Your task to perform on an android device: open sync settings in chrome Image 0: 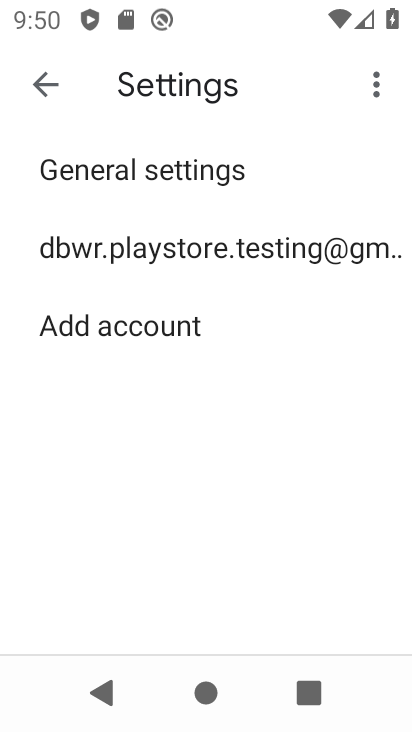
Step 0: press home button
Your task to perform on an android device: open sync settings in chrome Image 1: 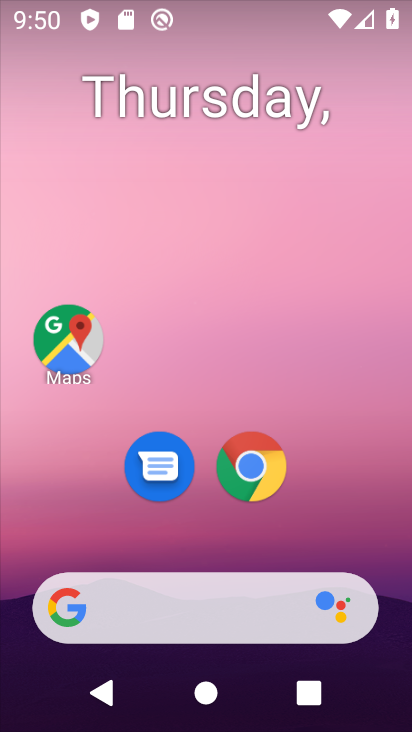
Step 1: click (258, 475)
Your task to perform on an android device: open sync settings in chrome Image 2: 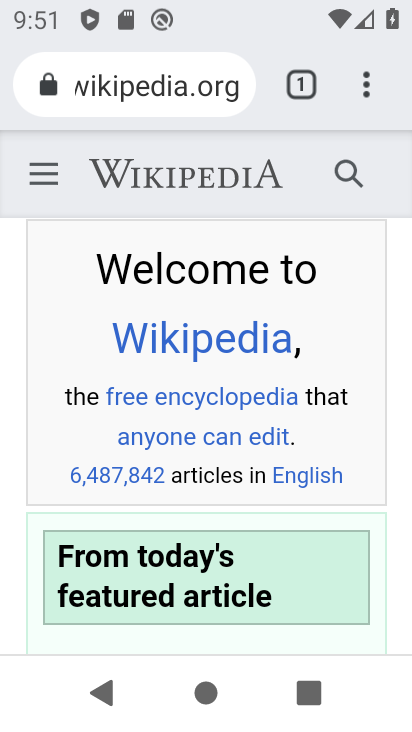
Step 2: click (364, 75)
Your task to perform on an android device: open sync settings in chrome Image 3: 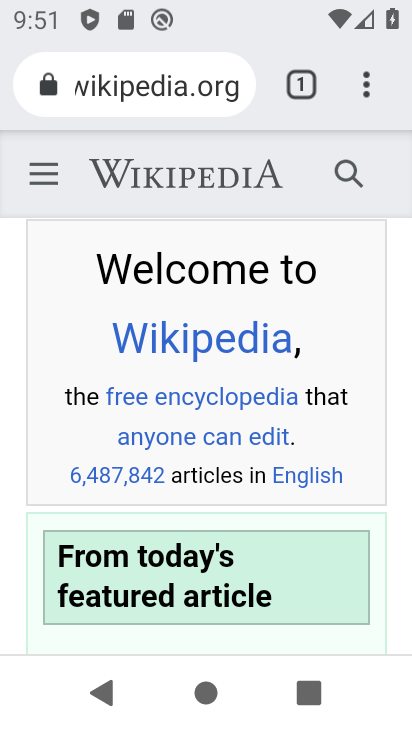
Step 3: click (362, 83)
Your task to perform on an android device: open sync settings in chrome Image 4: 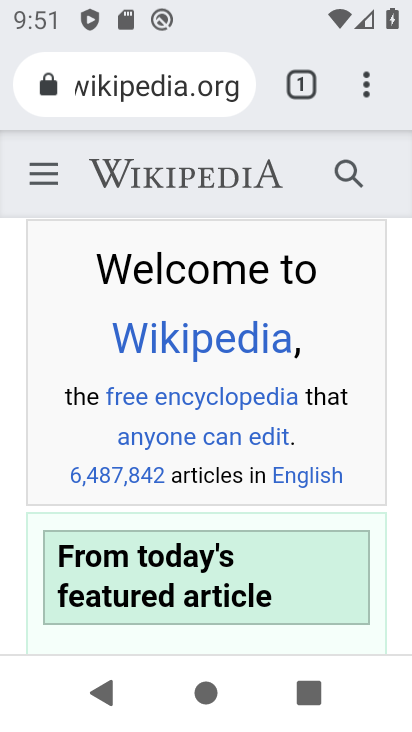
Step 4: click (366, 89)
Your task to perform on an android device: open sync settings in chrome Image 5: 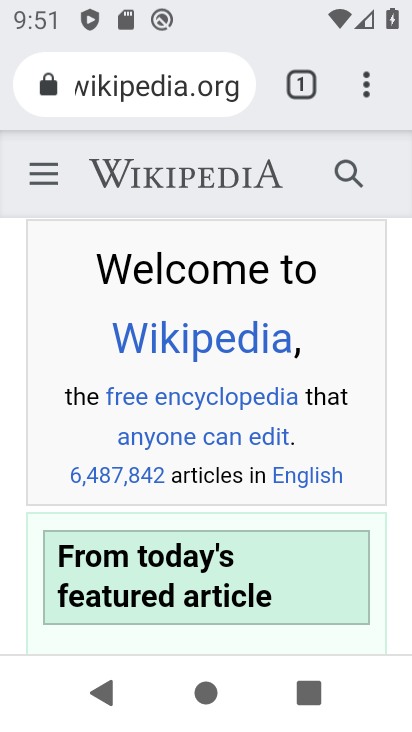
Step 5: click (369, 93)
Your task to perform on an android device: open sync settings in chrome Image 6: 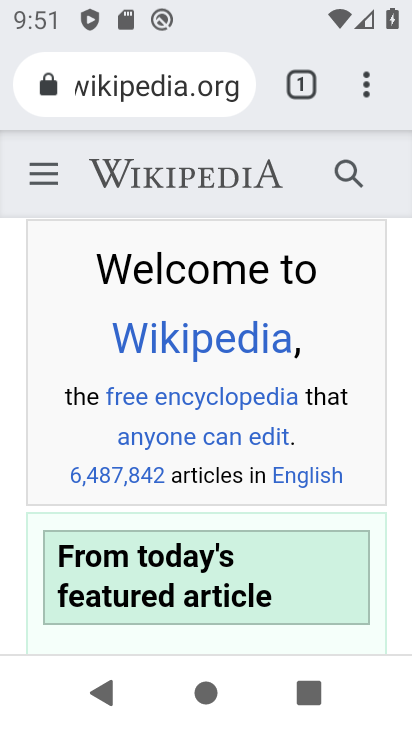
Step 6: click (369, 93)
Your task to perform on an android device: open sync settings in chrome Image 7: 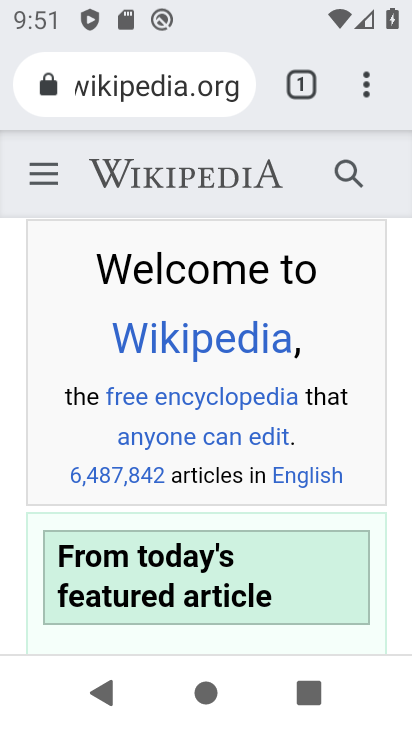
Step 7: click (368, 83)
Your task to perform on an android device: open sync settings in chrome Image 8: 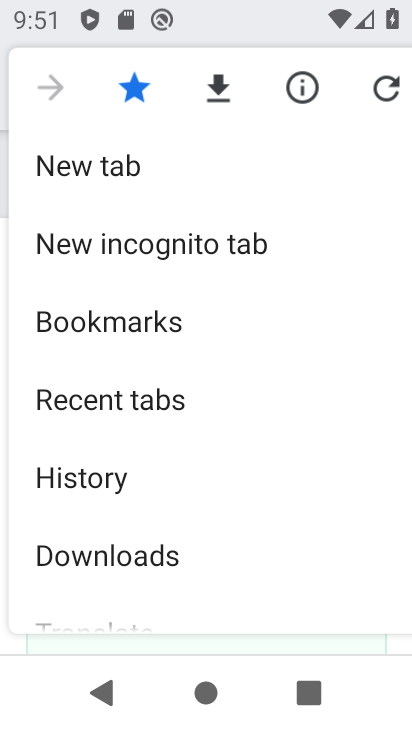
Step 8: drag from (210, 513) to (236, 140)
Your task to perform on an android device: open sync settings in chrome Image 9: 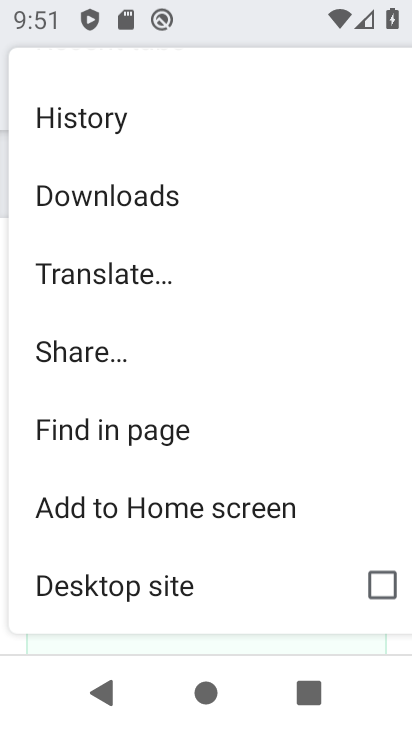
Step 9: drag from (174, 498) to (241, 162)
Your task to perform on an android device: open sync settings in chrome Image 10: 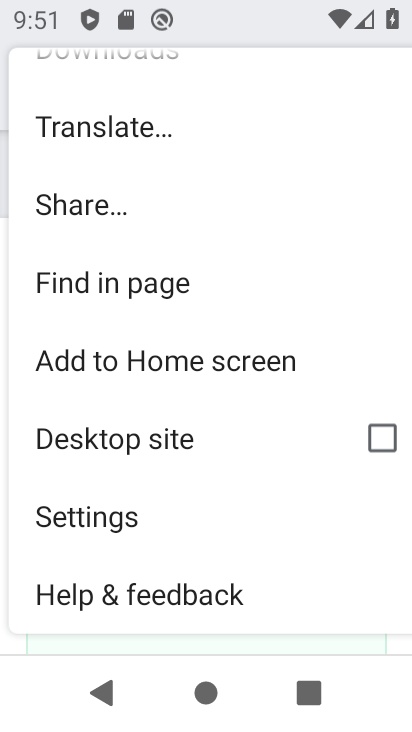
Step 10: click (107, 512)
Your task to perform on an android device: open sync settings in chrome Image 11: 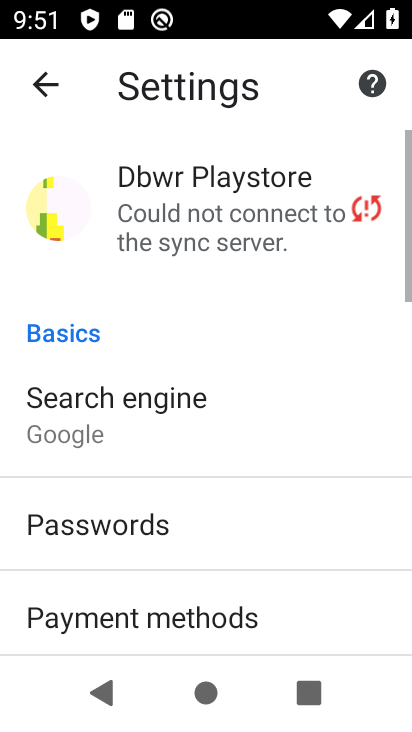
Step 11: drag from (287, 551) to (293, 94)
Your task to perform on an android device: open sync settings in chrome Image 12: 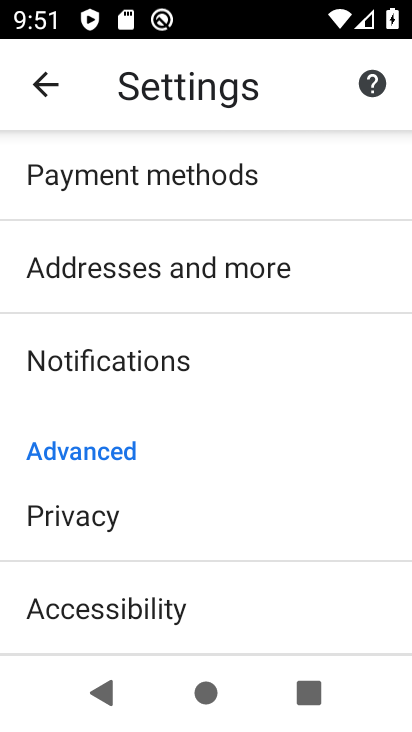
Step 12: drag from (254, 547) to (323, 118)
Your task to perform on an android device: open sync settings in chrome Image 13: 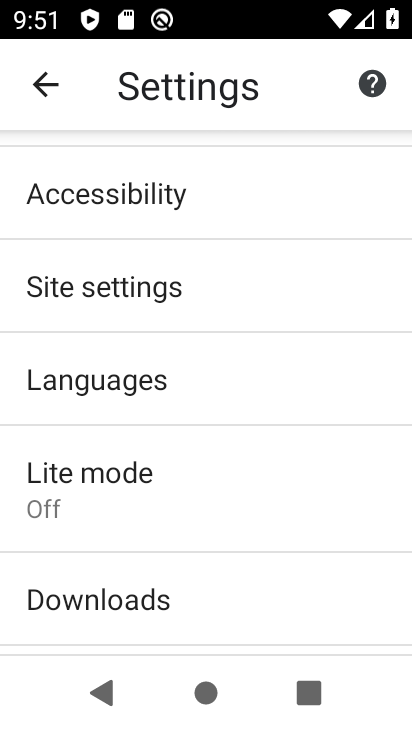
Step 13: drag from (263, 463) to (302, 240)
Your task to perform on an android device: open sync settings in chrome Image 14: 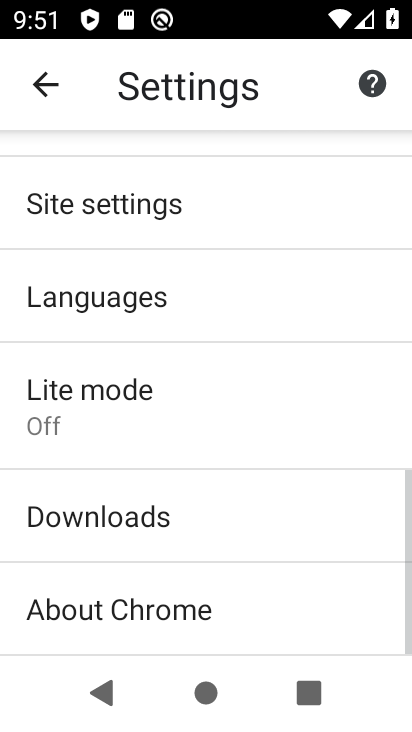
Step 14: click (270, 210)
Your task to perform on an android device: open sync settings in chrome Image 15: 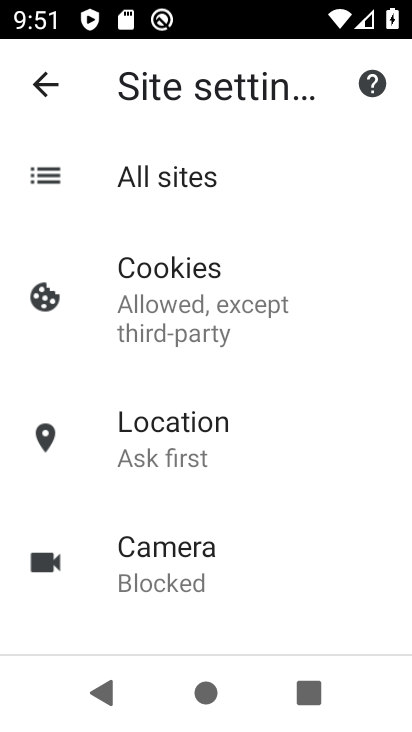
Step 15: drag from (244, 502) to (237, 218)
Your task to perform on an android device: open sync settings in chrome Image 16: 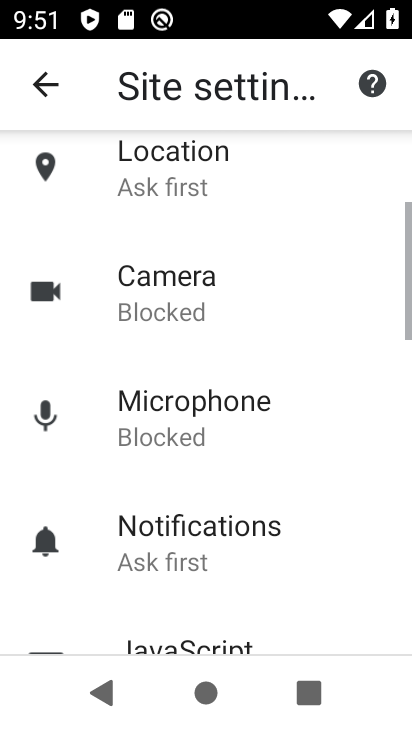
Step 16: drag from (254, 572) to (248, 178)
Your task to perform on an android device: open sync settings in chrome Image 17: 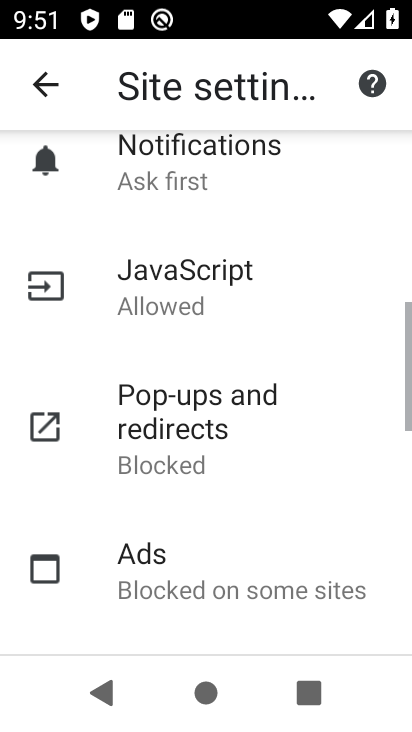
Step 17: drag from (282, 518) to (272, 195)
Your task to perform on an android device: open sync settings in chrome Image 18: 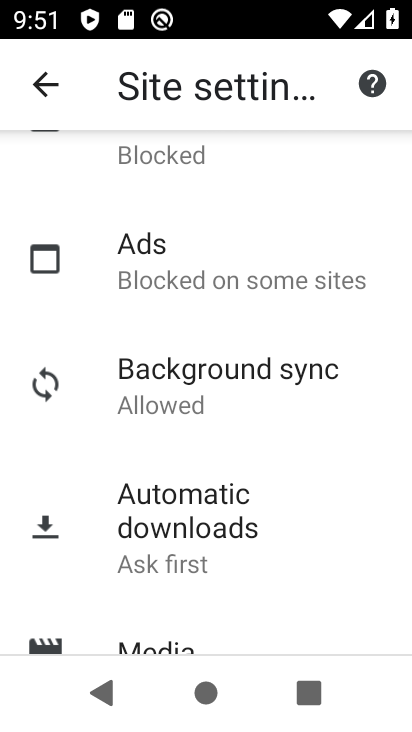
Step 18: click (261, 374)
Your task to perform on an android device: open sync settings in chrome Image 19: 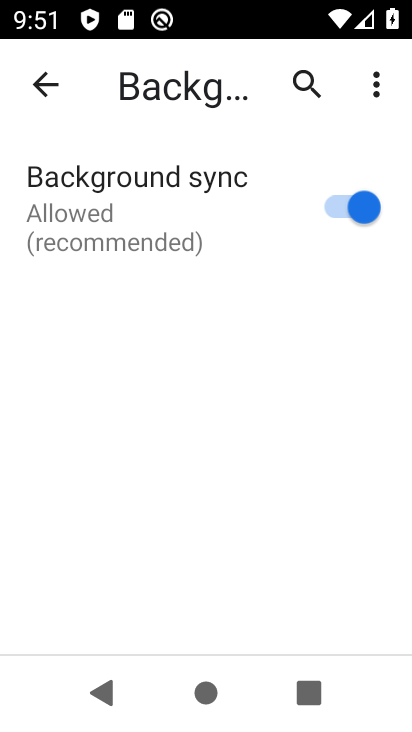
Step 19: task complete